Your task to perform on an android device: open chrome and create a bookmark for the current page Image 0: 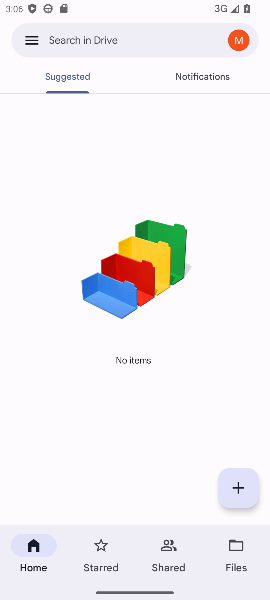
Step 0: press home button
Your task to perform on an android device: open chrome and create a bookmark for the current page Image 1: 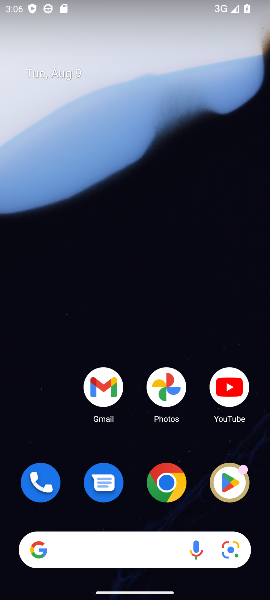
Step 1: click (171, 469)
Your task to perform on an android device: open chrome and create a bookmark for the current page Image 2: 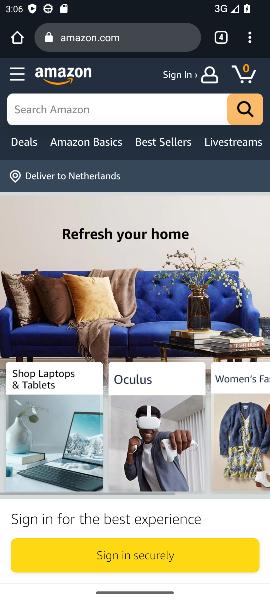
Step 2: click (221, 40)
Your task to perform on an android device: open chrome and create a bookmark for the current page Image 3: 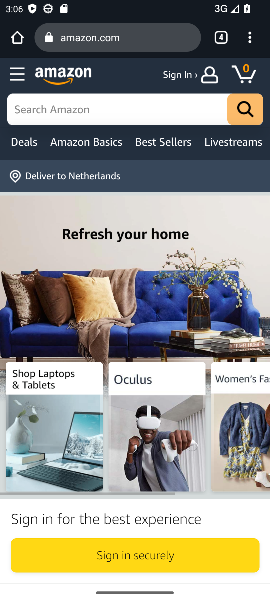
Step 3: click (219, 41)
Your task to perform on an android device: open chrome and create a bookmark for the current page Image 4: 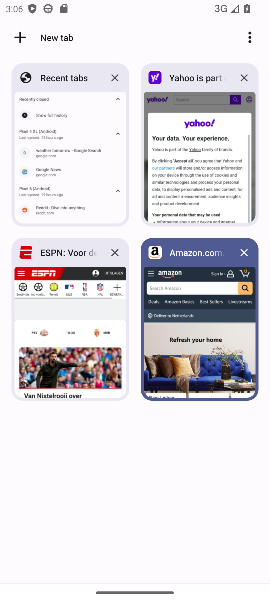
Step 4: click (11, 31)
Your task to perform on an android device: open chrome and create a bookmark for the current page Image 5: 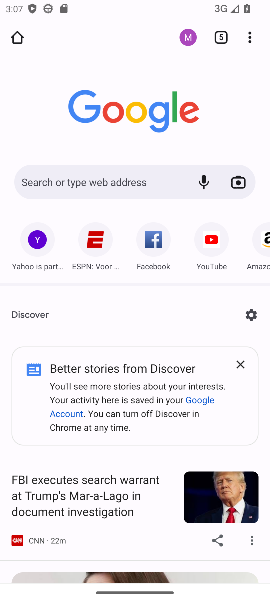
Step 5: drag from (123, 454) to (128, 148)
Your task to perform on an android device: open chrome and create a bookmark for the current page Image 6: 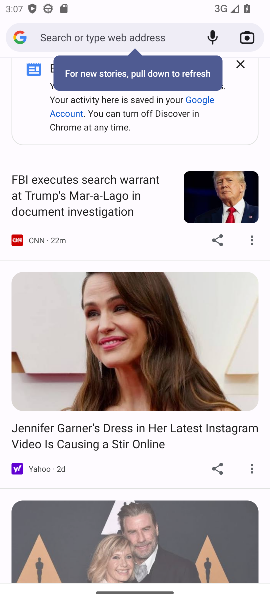
Step 6: drag from (140, 379) to (165, 106)
Your task to perform on an android device: open chrome and create a bookmark for the current page Image 7: 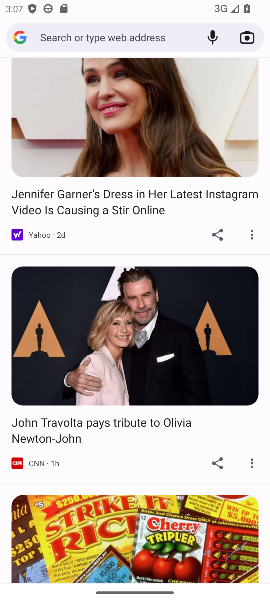
Step 7: drag from (147, 362) to (147, 109)
Your task to perform on an android device: open chrome and create a bookmark for the current page Image 8: 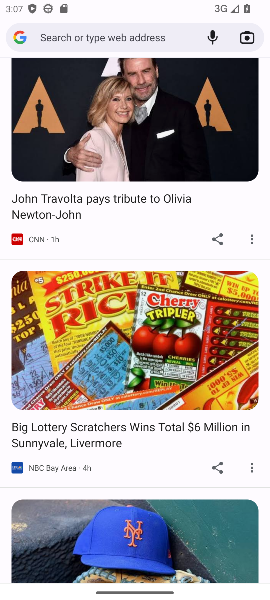
Step 8: drag from (145, 407) to (144, 151)
Your task to perform on an android device: open chrome and create a bookmark for the current page Image 9: 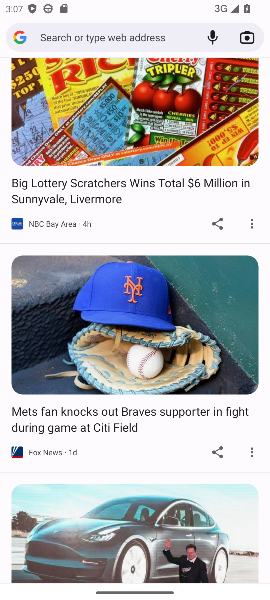
Step 9: click (165, 120)
Your task to perform on an android device: open chrome and create a bookmark for the current page Image 10: 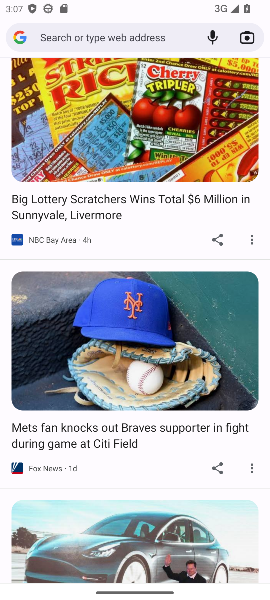
Step 10: click (128, 302)
Your task to perform on an android device: open chrome and create a bookmark for the current page Image 11: 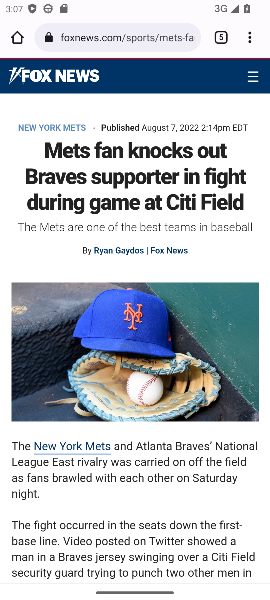
Step 11: click (247, 42)
Your task to perform on an android device: open chrome and create a bookmark for the current page Image 12: 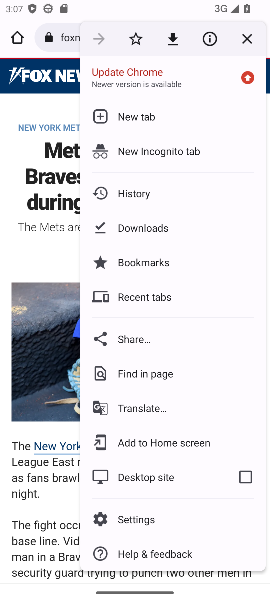
Step 12: click (143, 31)
Your task to perform on an android device: open chrome and create a bookmark for the current page Image 13: 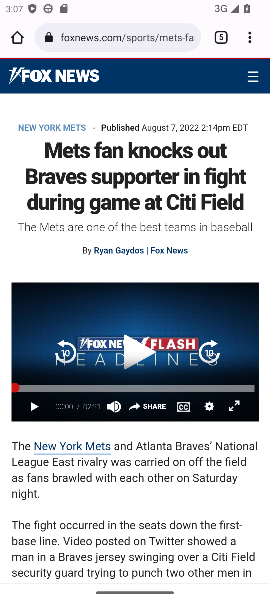
Step 13: task complete